Your task to perform on an android device: Do I have any events tomorrow? Image 0: 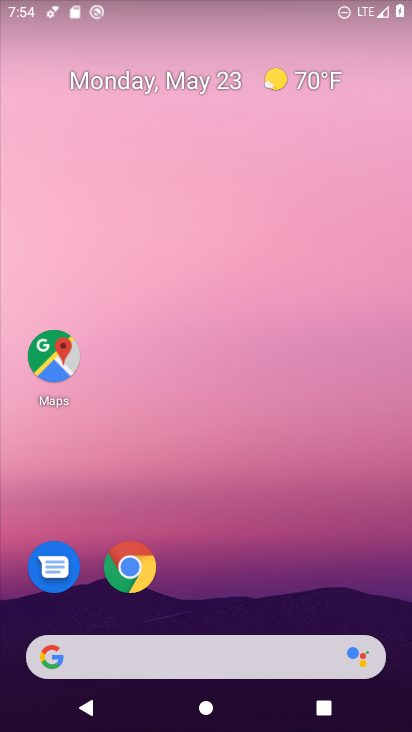
Step 0: click (383, 113)
Your task to perform on an android device: Do I have any events tomorrow? Image 1: 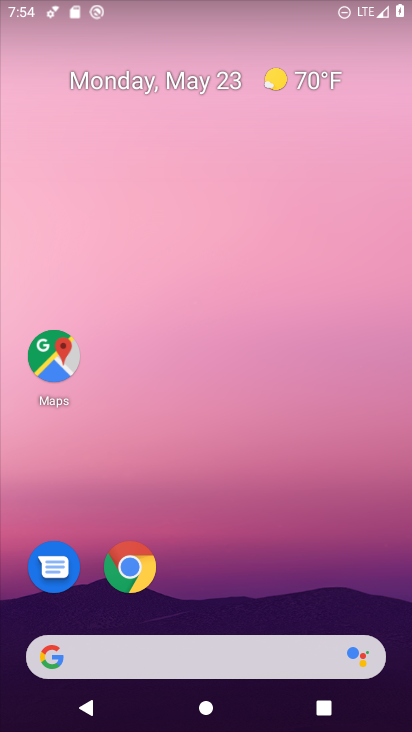
Step 1: drag from (185, 637) to (218, 270)
Your task to perform on an android device: Do I have any events tomorrow? Image 2: 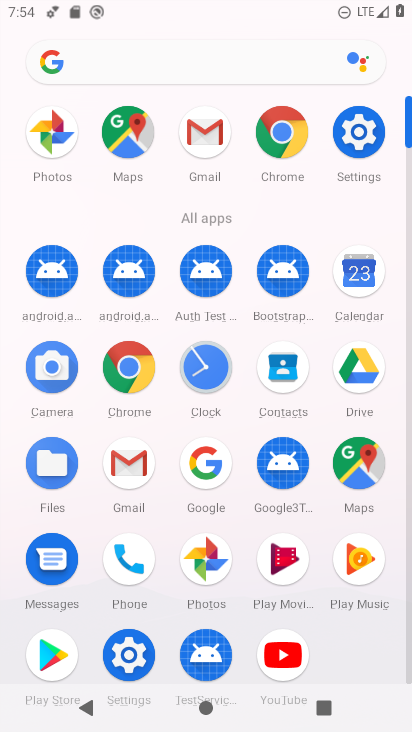
Step 2: click (370, 279)
Your task to perform on an android device: Do I have any events tomorrow? Image 3: 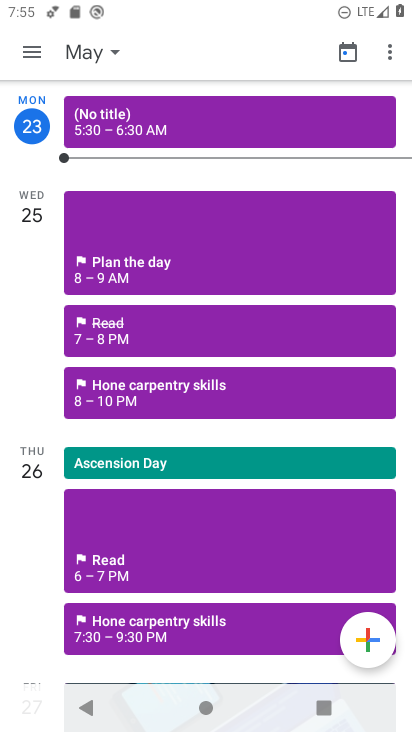
Step 3: click (90, 48)
Your task to perform on an android device: Do I have any events tomorrow? Image 4: 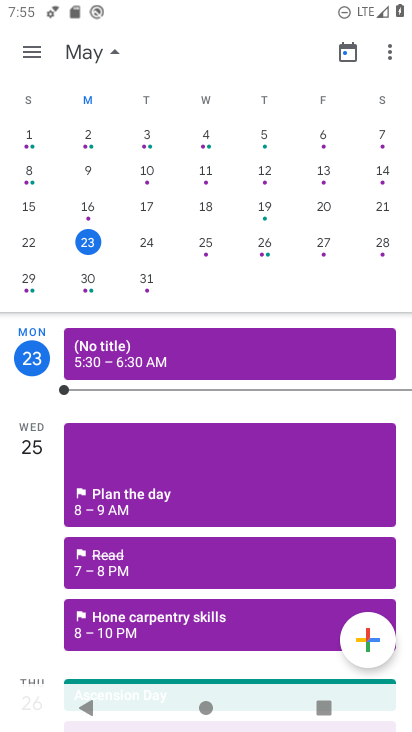
Step 4: click (146, 235)
Your task to perform on an android device: Do I have any events tomorrow? Image 5: 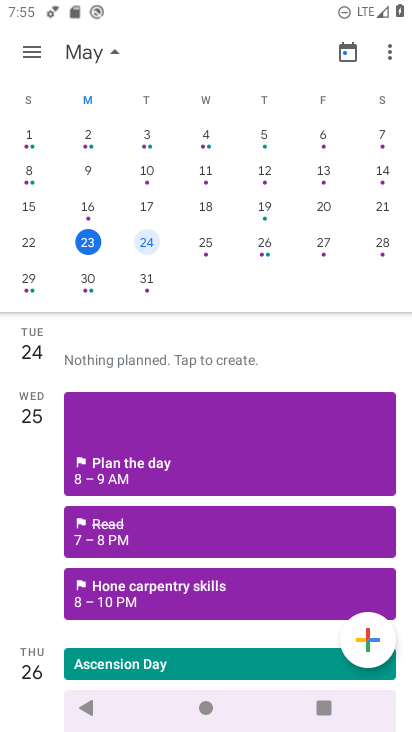
Step 5: task complete